Your task to perform on an android device: Show me recent news Image 0: 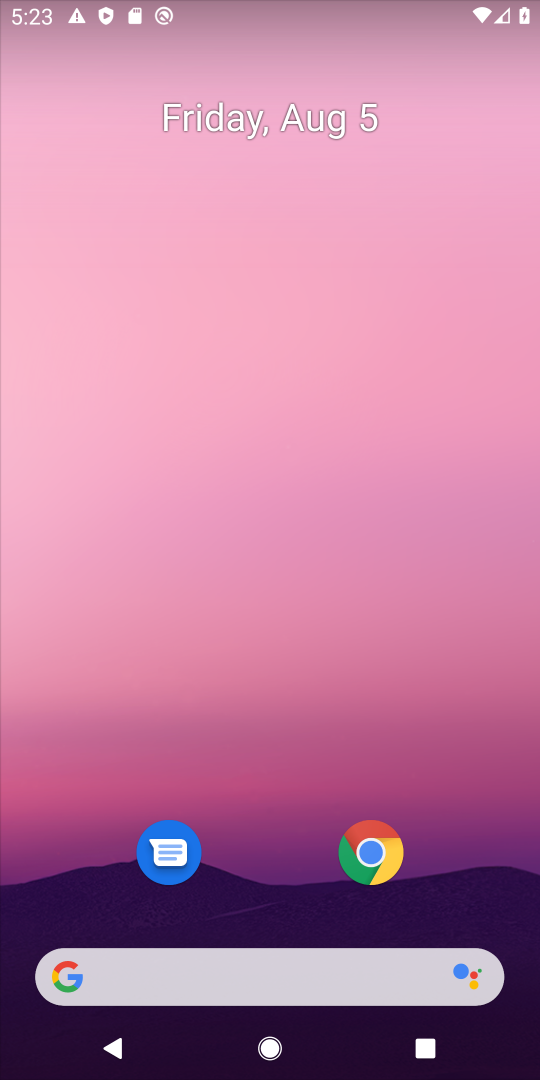
Step 0: drag from (274, 863) to (294, 102)
Your task to perform on an android device: Show me recent news Image 1: 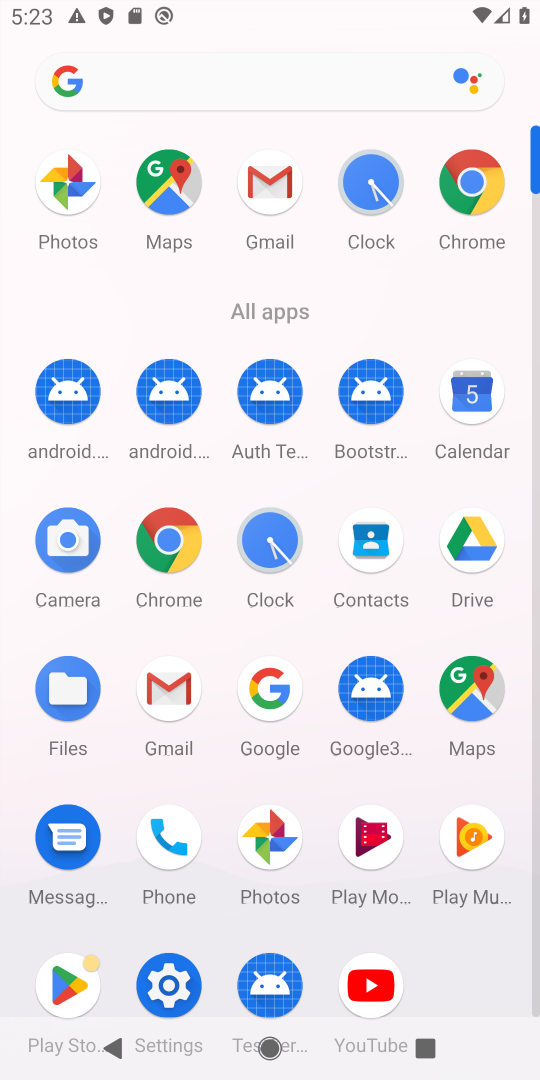
Step 1: click (250, 79)
Your task to perform on an android device: Show me recent news Image 2: 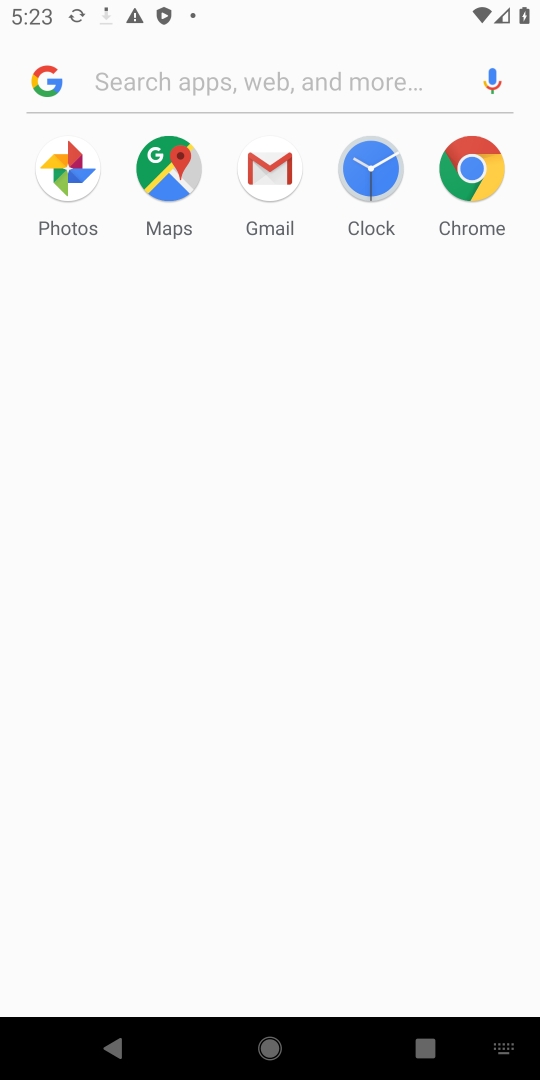
Step 2: type "recent news"
Your task to perform on an android device: Show me recent news Image 3: 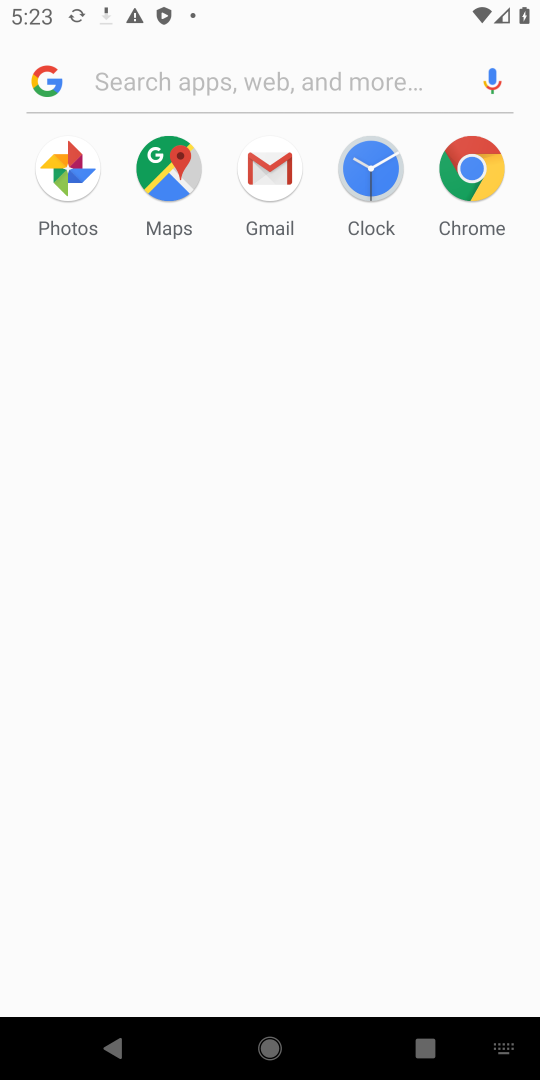
Step 3: click (329, 77)
Your task to perform on an android device: Show me recent news Image 4: 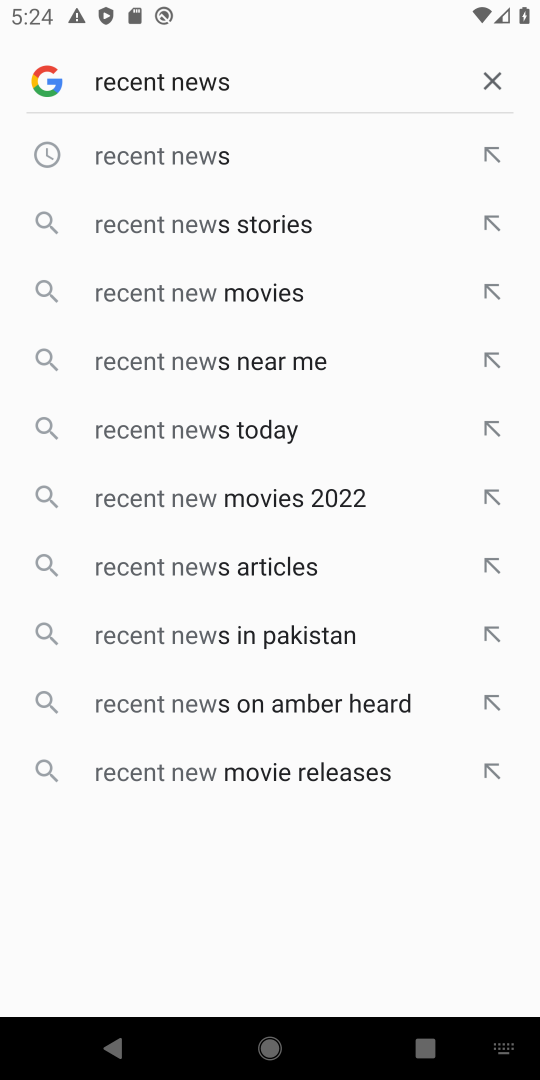
Step 4: click (197, 91)
Your task to perform on an android device: Show me recent news Image 5: 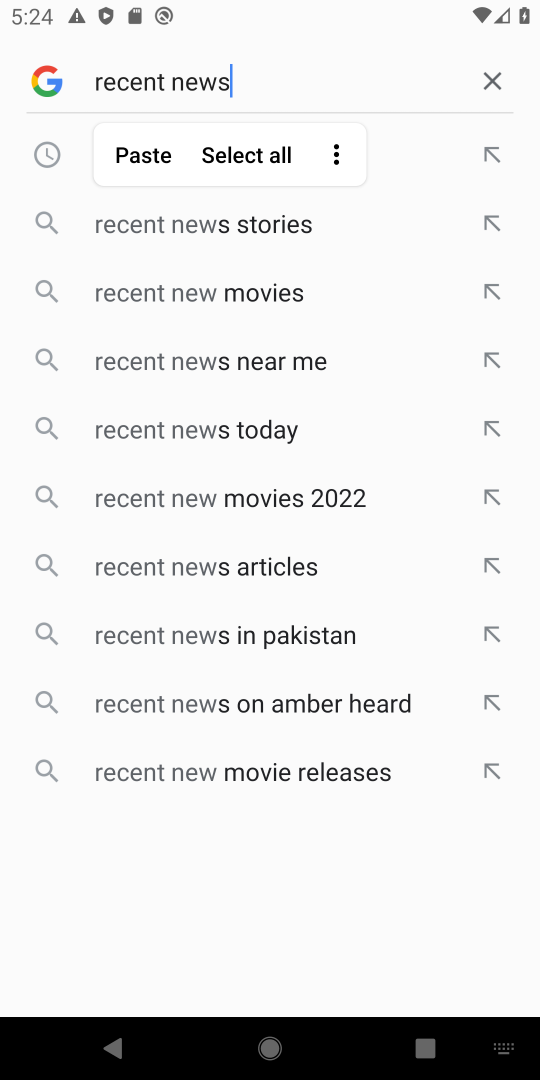
Step 5: click (213, 160)
Your task to perform on an android device: Show me recent news Image 6: 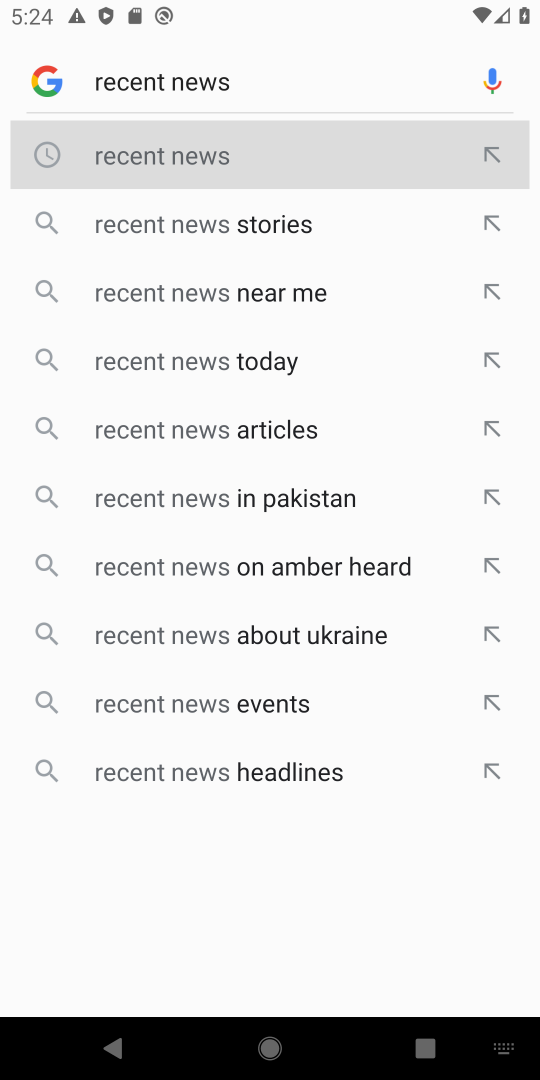
Step 6: click (161, 166)
Your task to perform on an android device: Show me recent news Image 7: 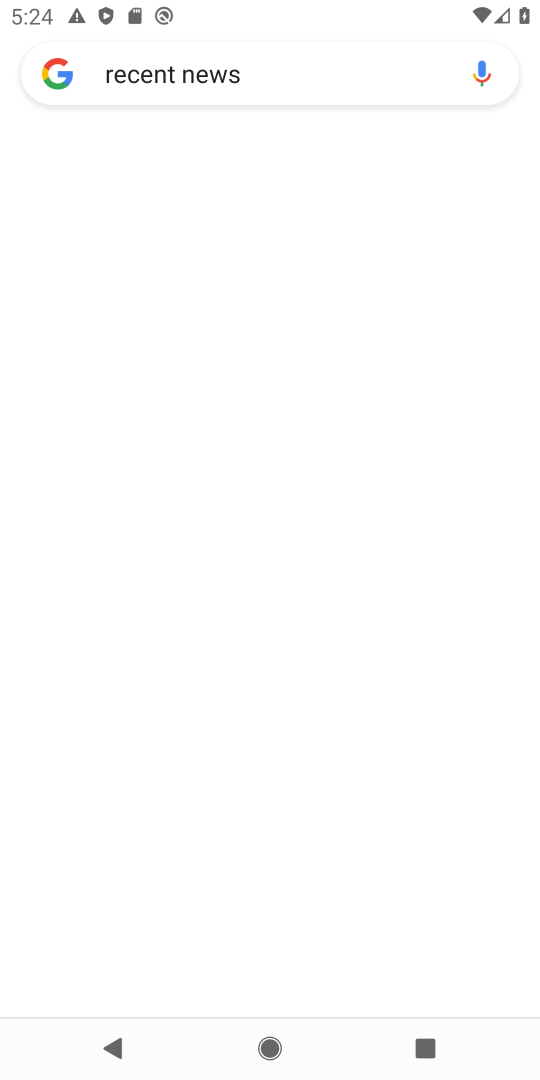
Step 7: click (336, 681)
Your task to perform on an android device: Show me recent news Image 8: 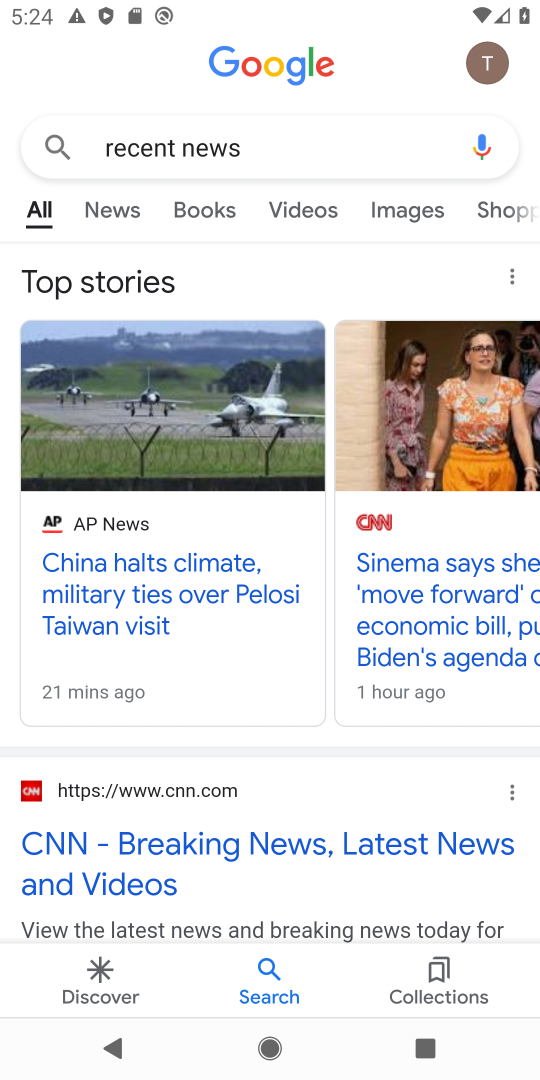
Step 8: task complete